Your task to perform on an android device: uninstall "Move to iOS" Image 0: 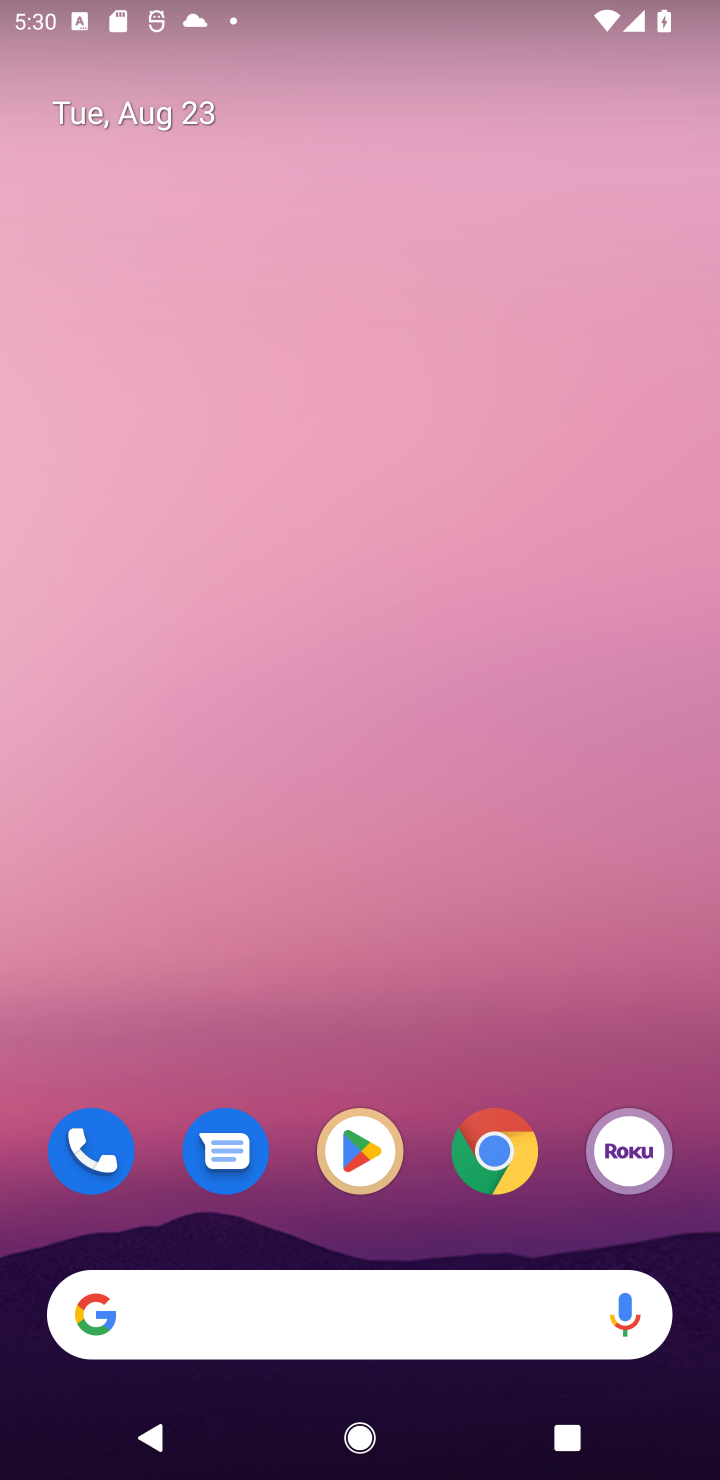
Step 0: press home button
Your task to perform on an android device: uninstall "Move to iOS" Image 1: 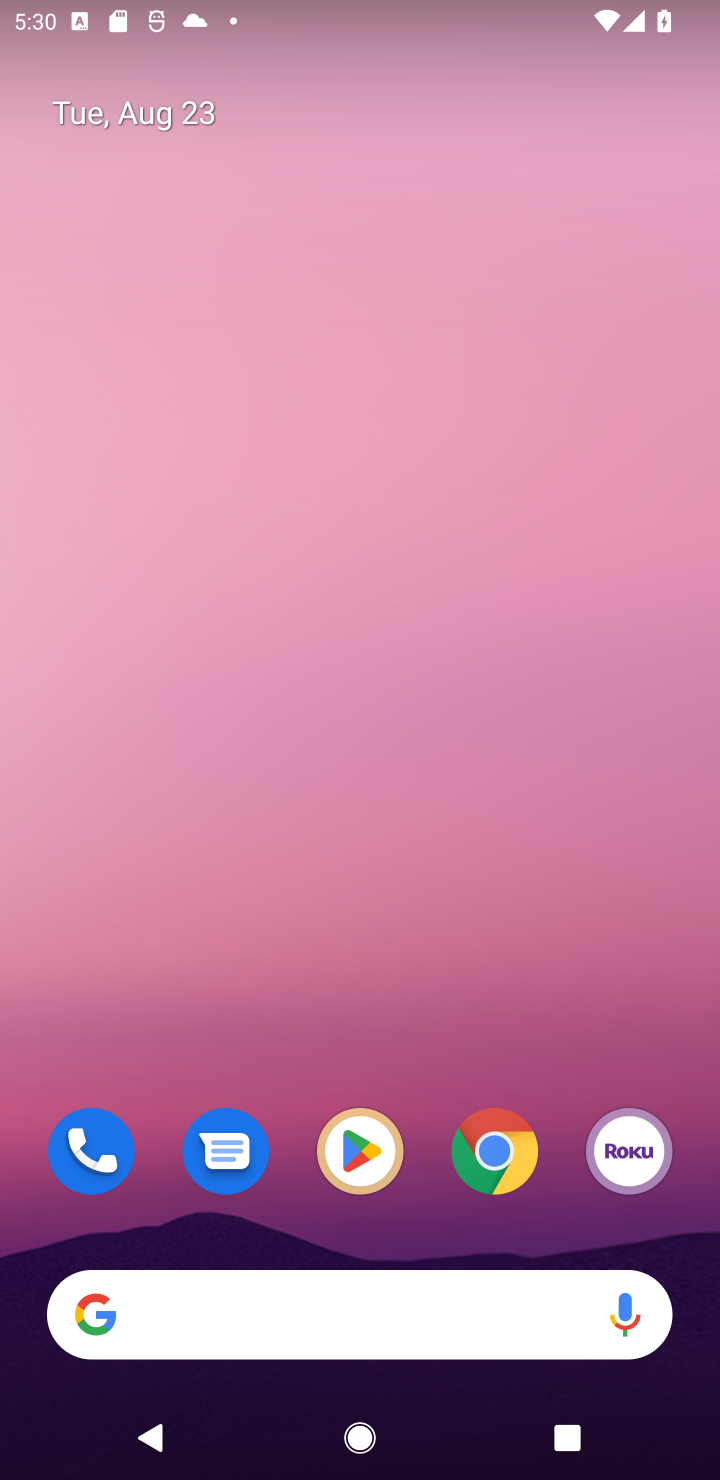
Step 1: click (358, 1150)
Your task to perform on an android device: uninstall "Move to iOS" Image 2: 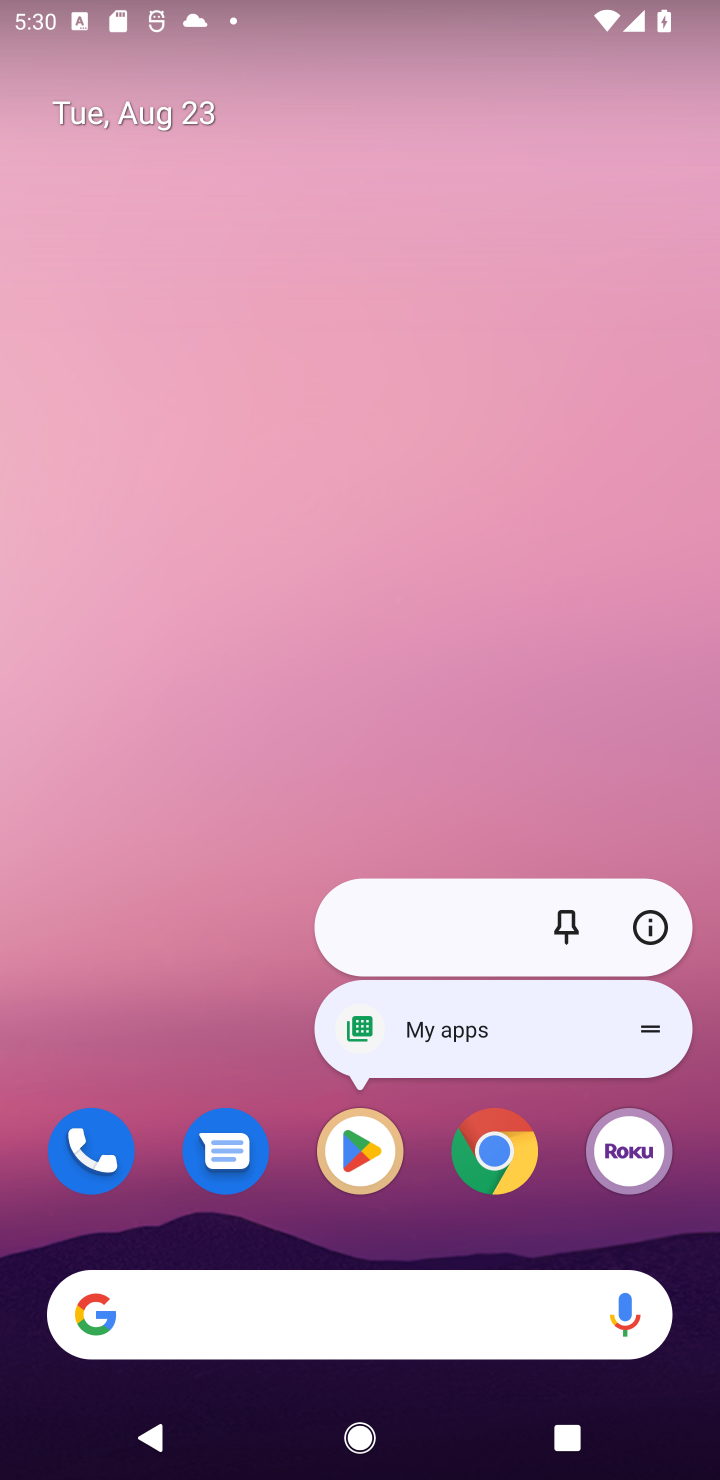
Step 2: click (360, 1161)
Your task to perform on an android device: uninstall "Move to iOS" Image 3: 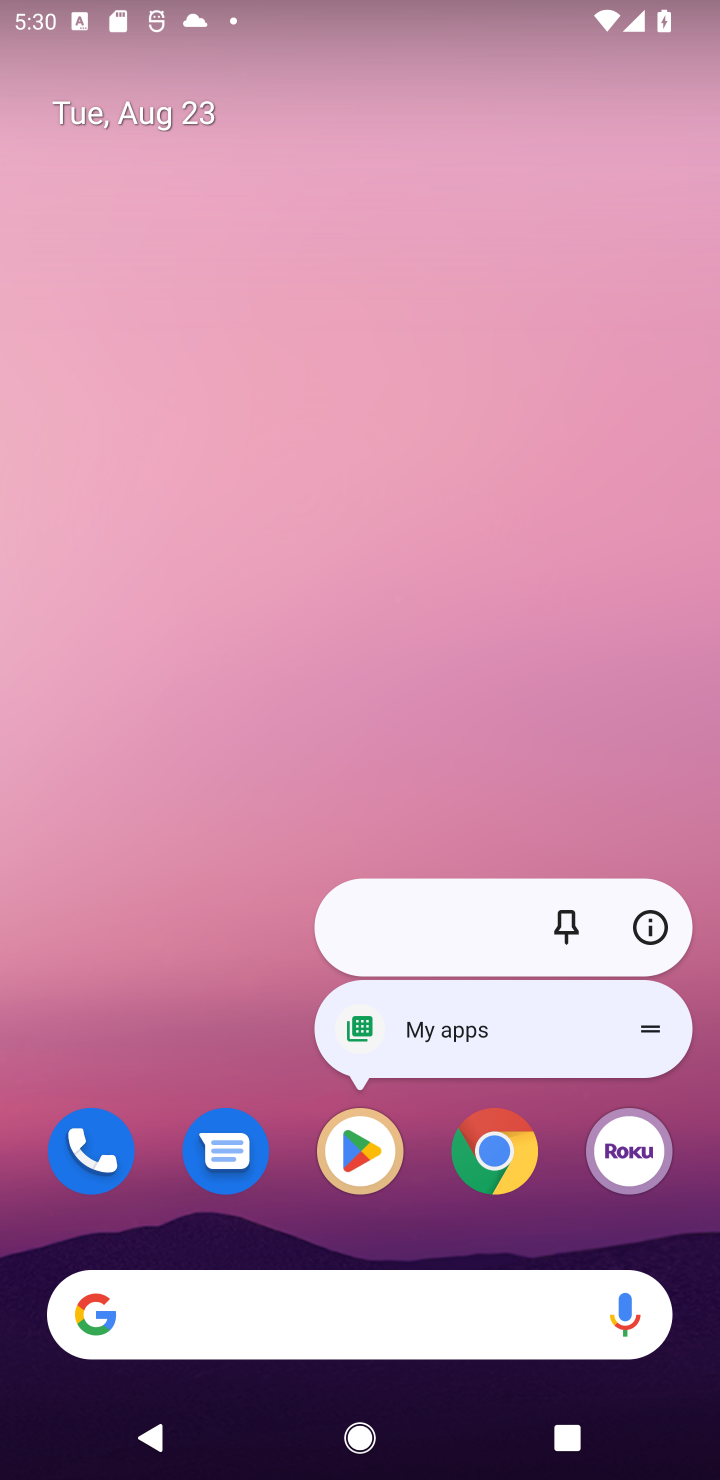
Step 3: click (360, 1161)
Your task to perform on an android device: uninstall "Move to iOS" Image 4: 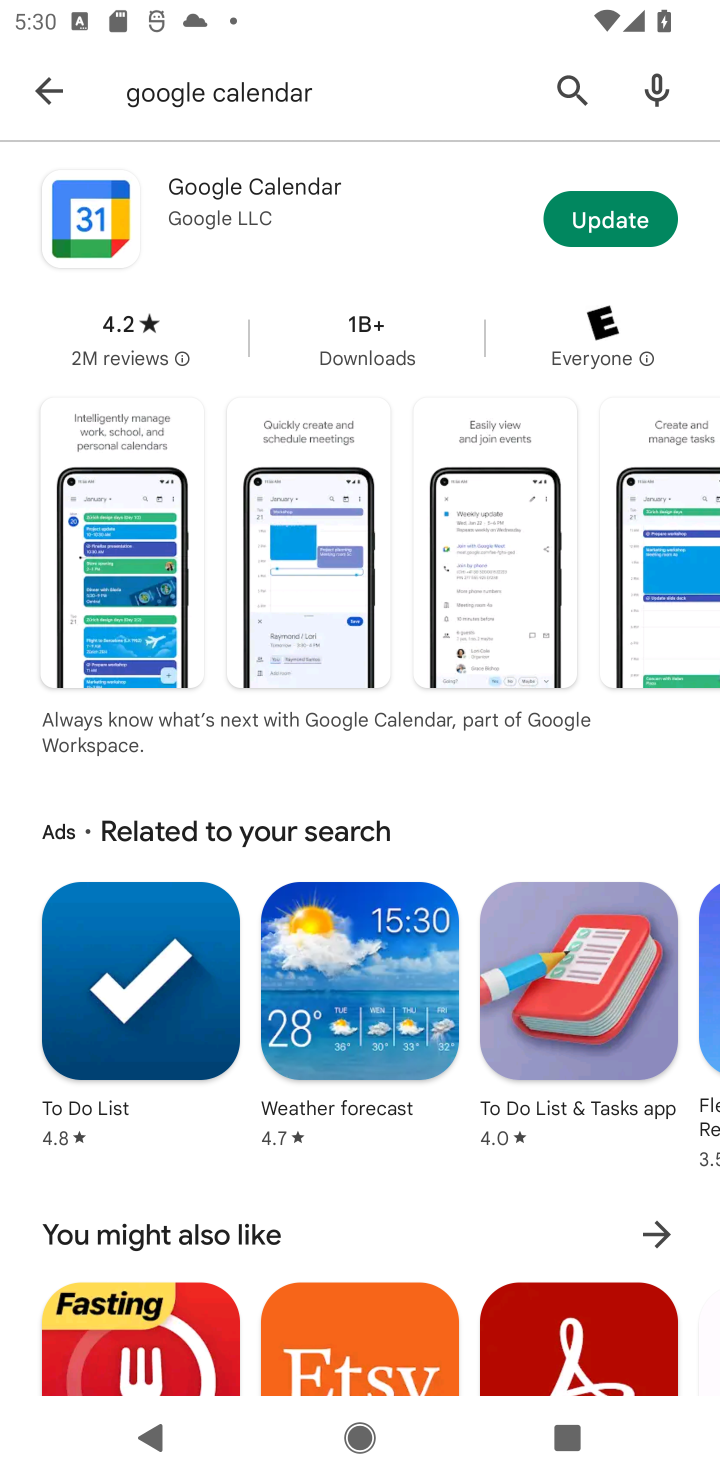
Step 4: click (573, 82)
Your task to perform on an android device: uninstall "Move to iOS" Image 5: 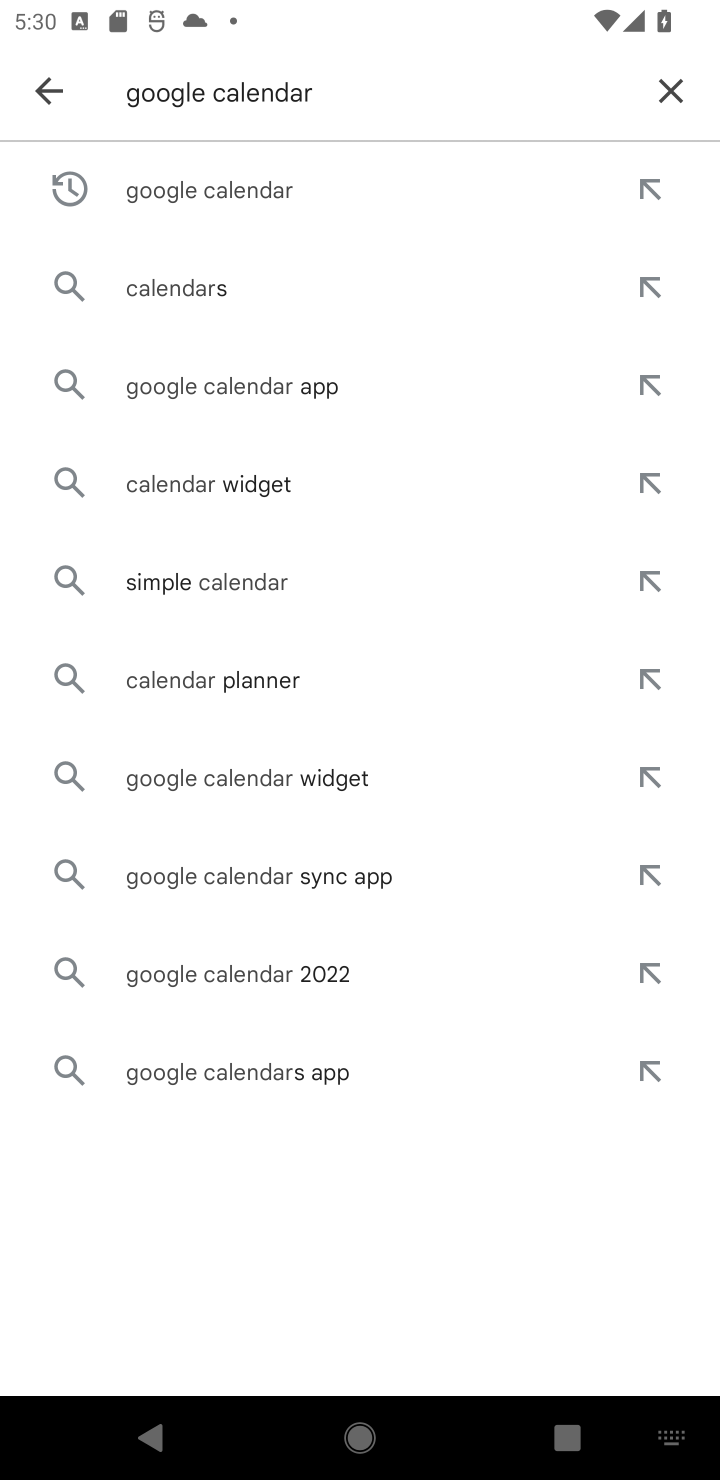
Step 5: click (666, 83)
Your task to perform on an android device: uninstall "Move to iOS" Image 6: 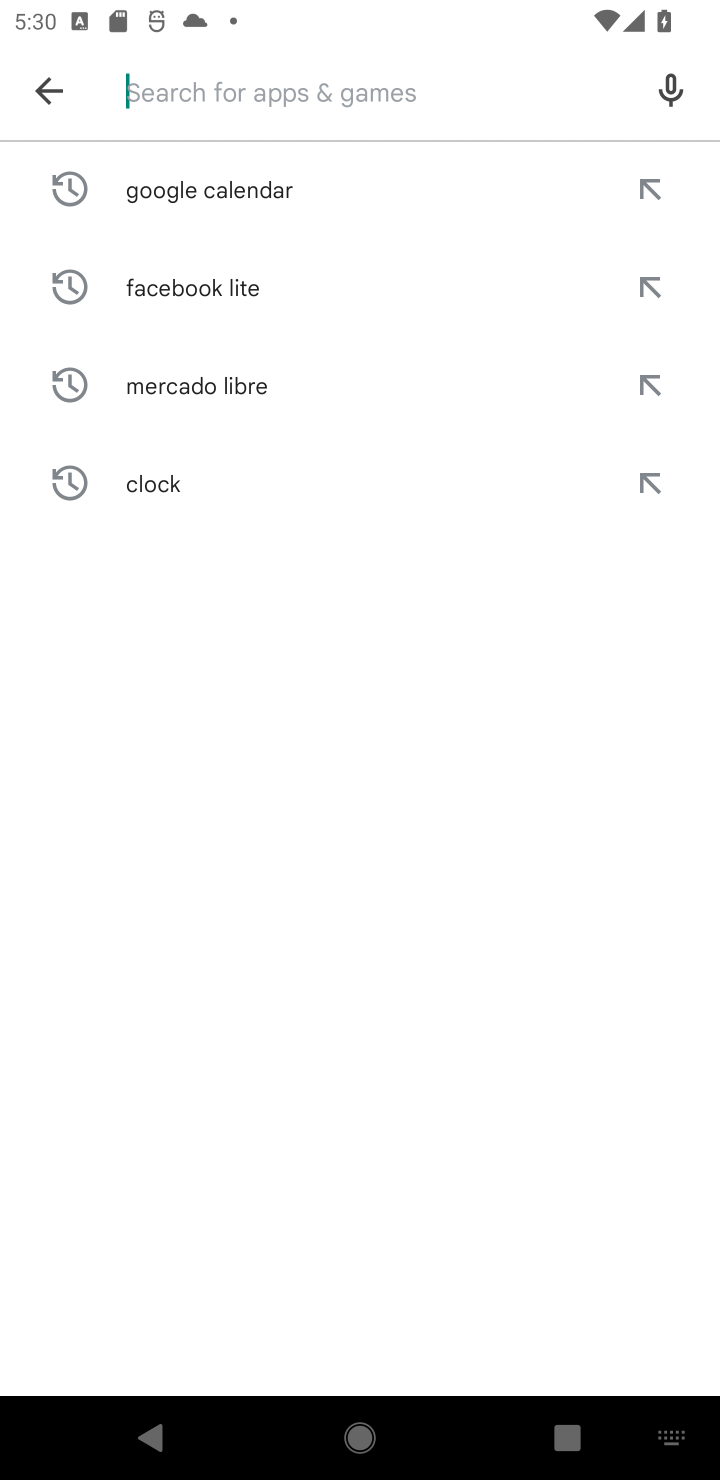
Step 6: type "Move to iOS"
Your task to perform on an android device: uninstall "Move to iOS" Image 7: 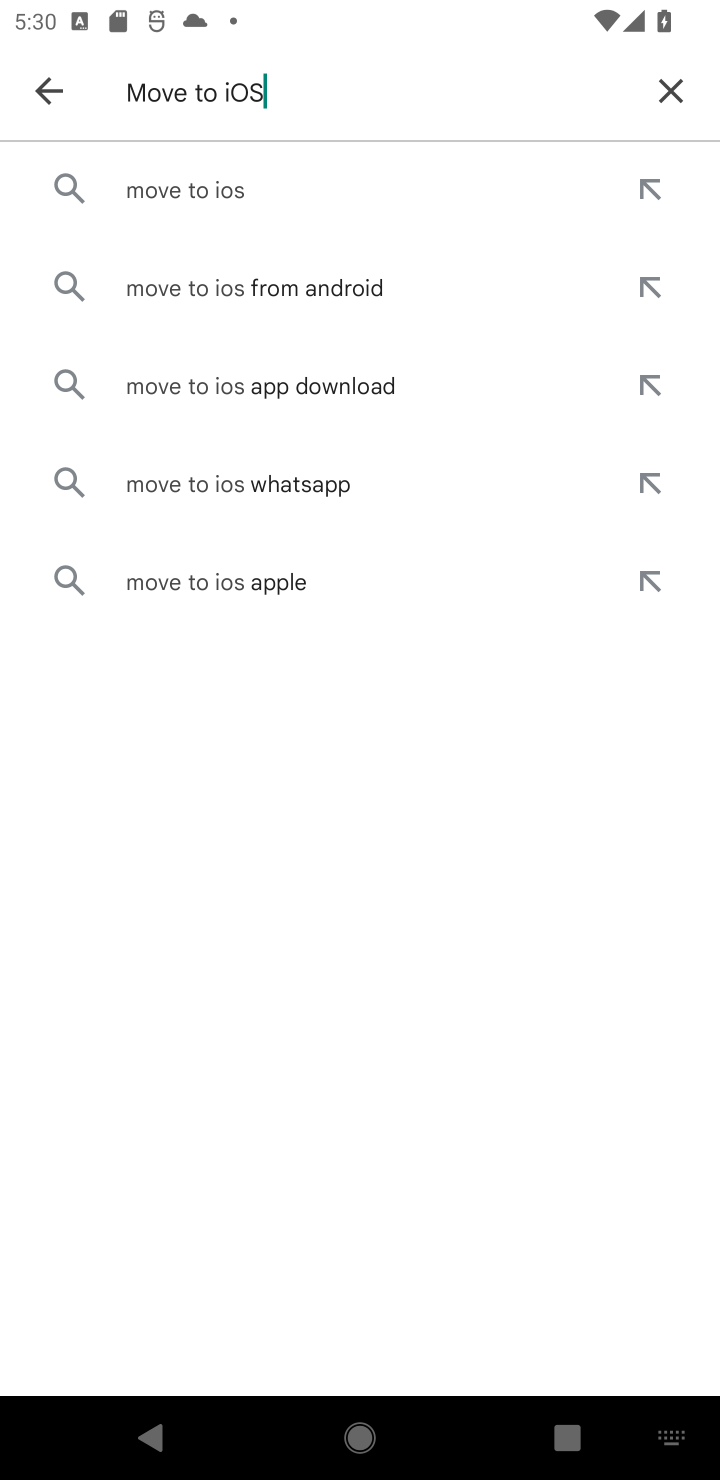
Step 7: click (229, 176)
Your task to perform on an android device: uninstall "Move to iOS" Image 8: 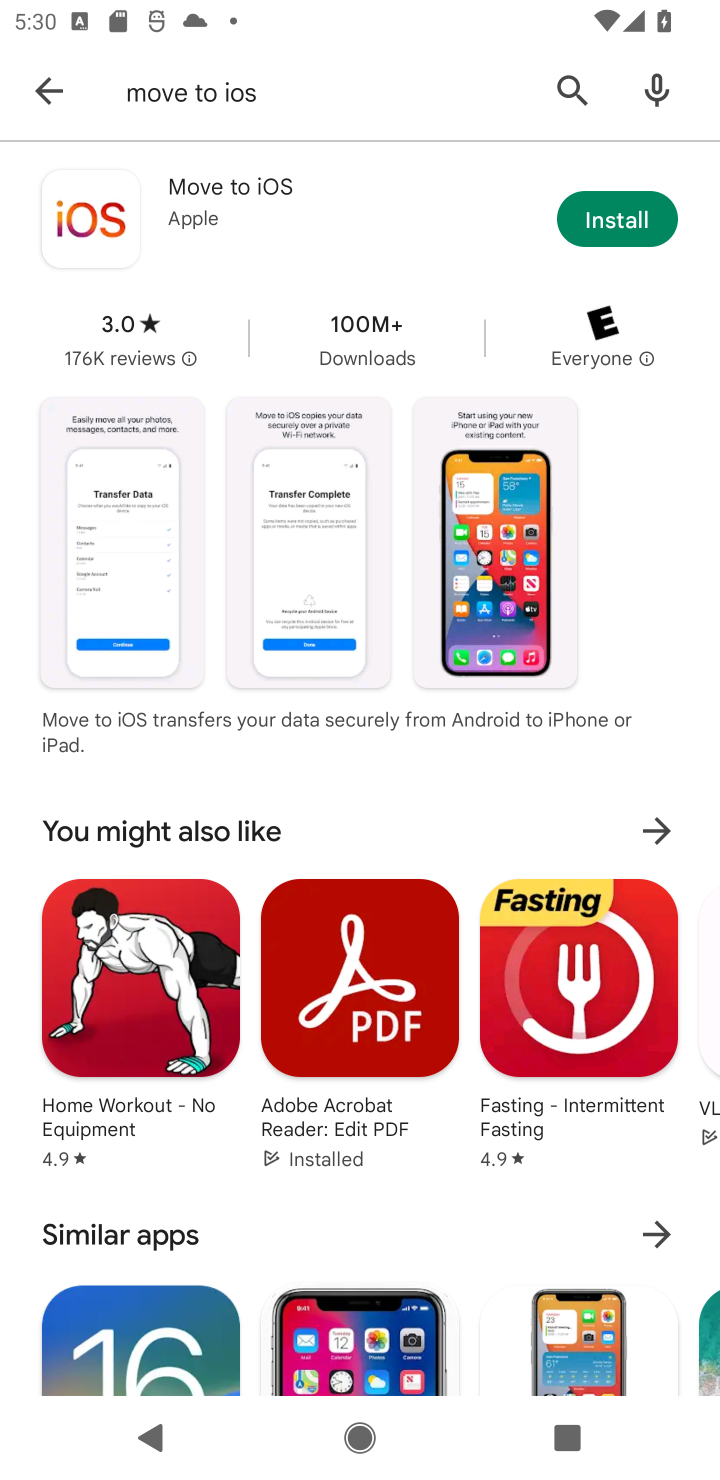
Step 8: task complete